Your task to perform on an android device: Open ESPN.com Image 0: 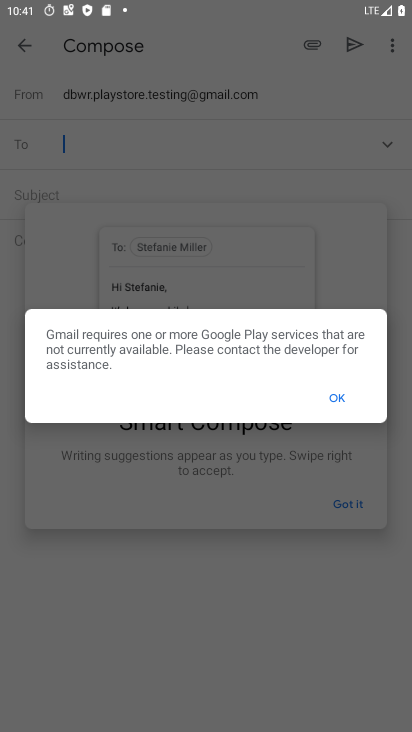
Step 0: press home button
Your task to perform on an android device: Open ESPN.com Image 1: 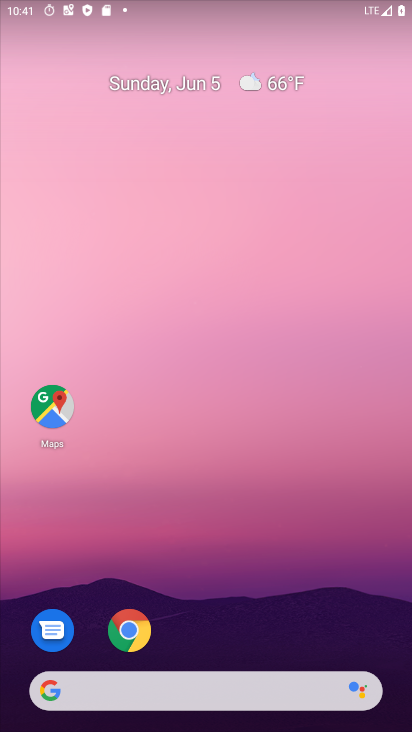
Step 1: click (127, 636)
Your task to perform on an android device: Open ESPN.com Image 2: 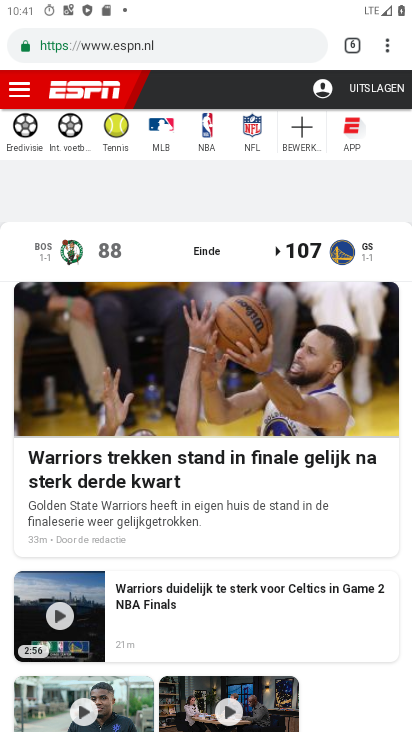
Step 2: task complete